Your task to perform on an android device: Show me productivity apps on the Play Store Image 0: 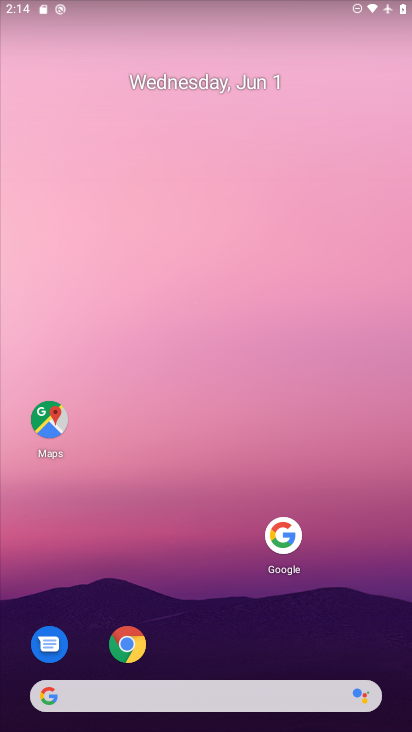
Step 0: press home button
Your task to perform on an android device: Show me productivity apps on the Play Store Image 1: 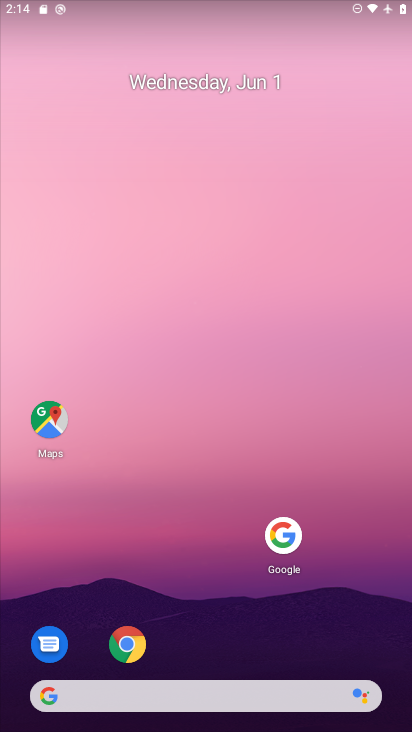
Step 1: drag from (149, 695) to (270, 71)
Your task to perform on an android device: Show me productivity apps on the Play Store Image 2: 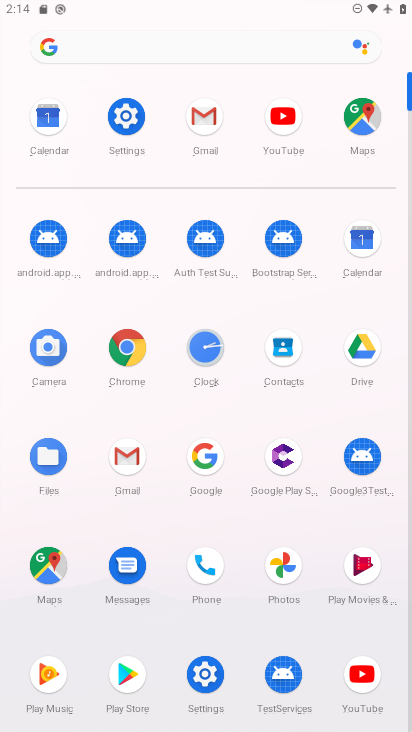
Step 2: click (128, 672)
Your task to perform on an android device: Show me productivity apps on the Play Store Image 3: 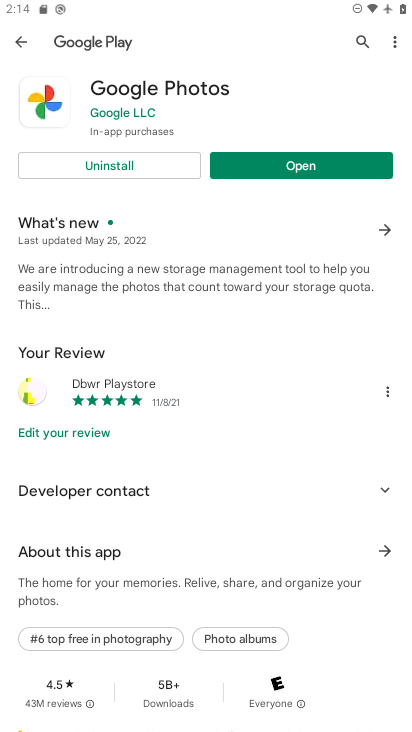
Step 3: click (14, 48)
Your task to perform on an android device: Show me productivity apps on the Play Store Image 4: 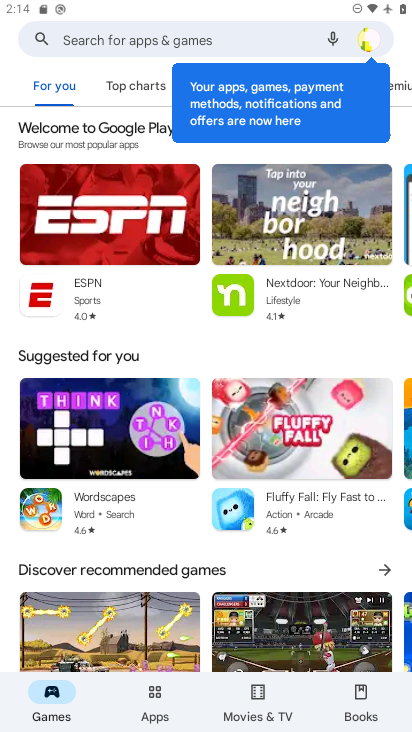
Step 4: click (155, 707)
Your task to perform on an android device: Show me productivity apps on the Play Store Image 5: 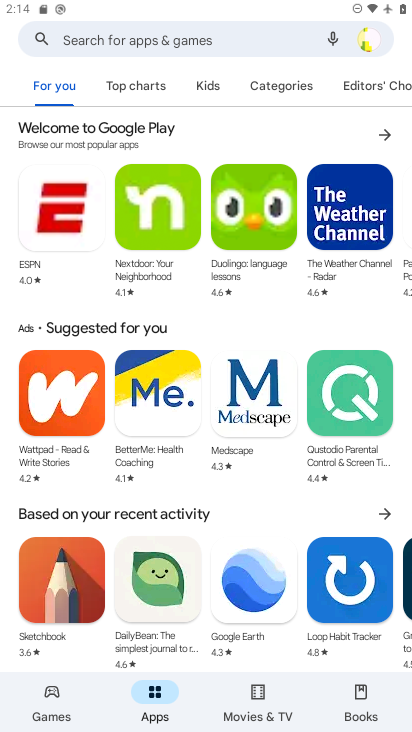
Step 5: click (278, 80)
Your task to perform on an android device: Show me productivity apps on the Play Store Image 6: 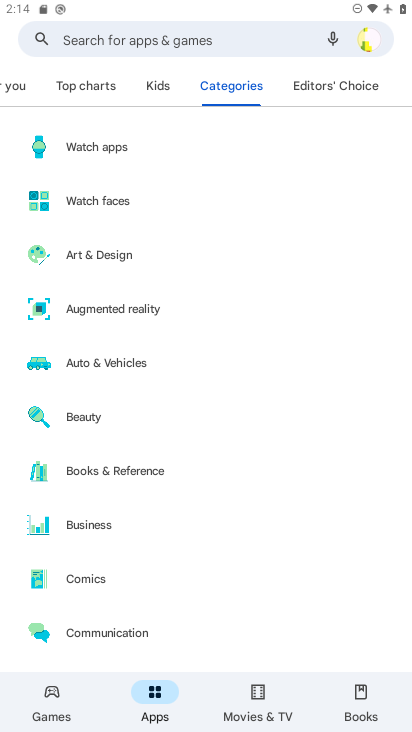
Step 6: drag from (199, 488) to (203, 126)
Your task to perform on an android device: Show me productivity apps on the Play Store Image 7: 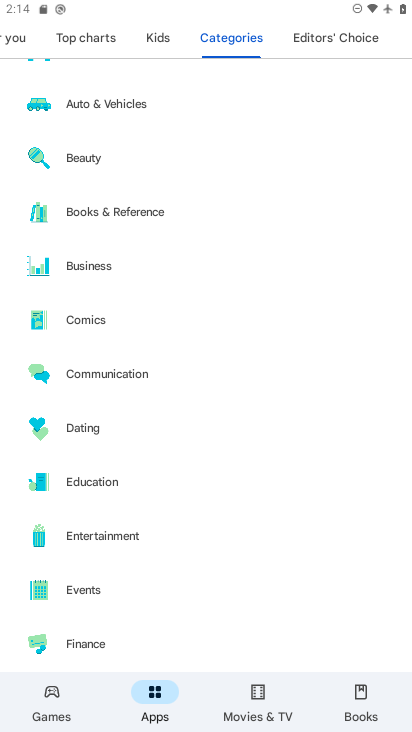
Step 7: drag from (182, 594) to (270, 56)
Your task to perform on an android device: Show me productivity apps on the Play Store Image 8: 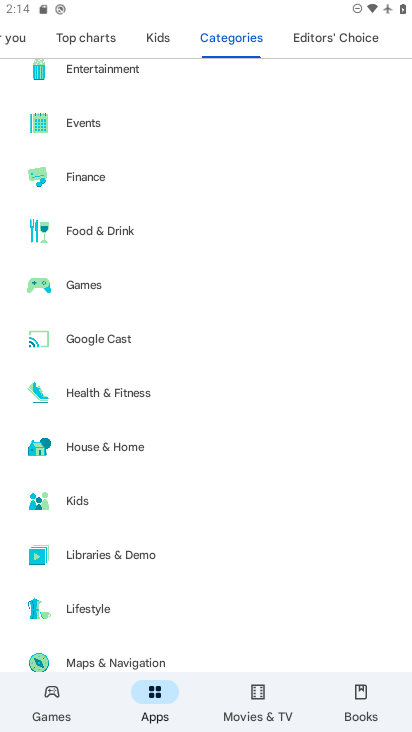
Step 8: drag from (192, 555) to (247, 163)
Your task to perform on an android device: Show me productivity apps on the Play Store Image 9: 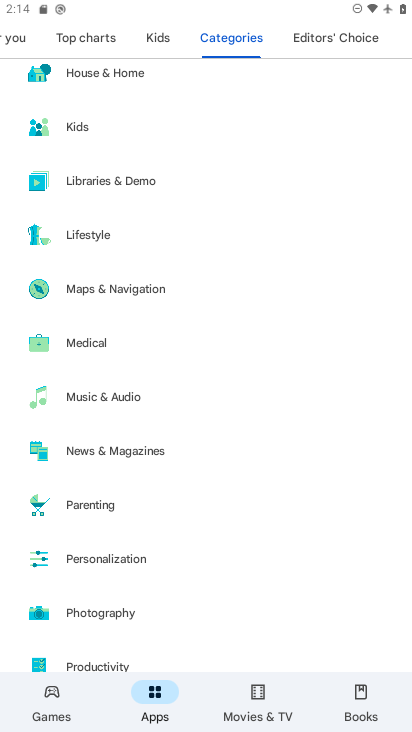
Step 9: drag from (195, 590) to (197, 389)
Your task to perform on an android device: Show me productivity apps on the Play Store Image 10: 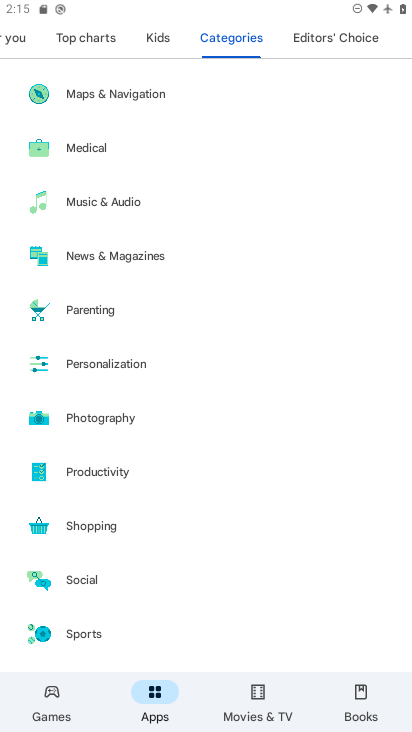
Step 10: click (104, 476)
Your task to perform on an android device: Show me productivity apps on the Play Store Image 11: 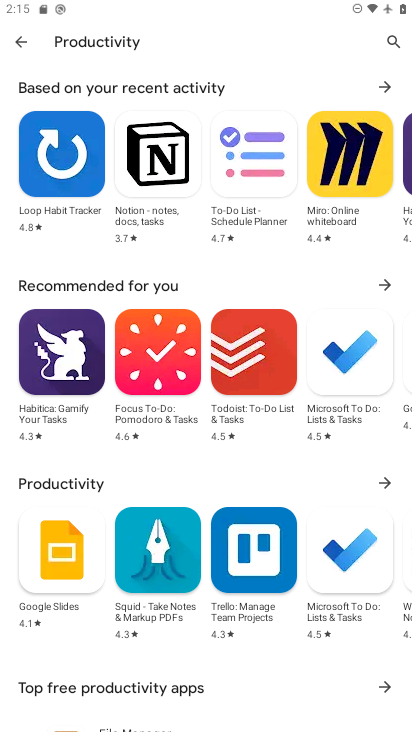
Step 11: task complete